Your task to perform on an android device: turn off notifications in google photos Image 0: 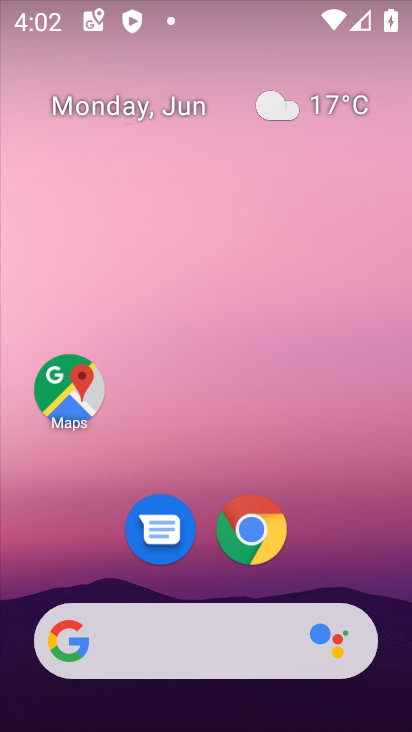
Step 0: drag from (355, 552) to (267, 0)
Your task to perform on an android device: turn off notifications in google photos Image 1: 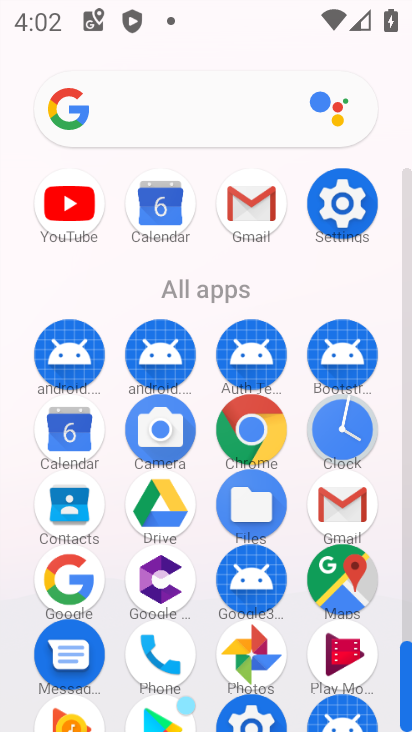
Step 1: click (252, 656)
Your task to perform on an android device: turn off notifications in google photos Image 2: 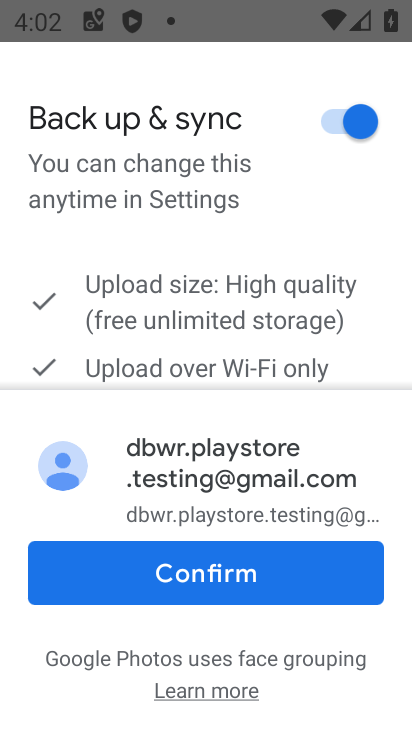
Step 2: click (213, 583)
Your task to perform on an android device: turn off notifications in google photos Image 3: 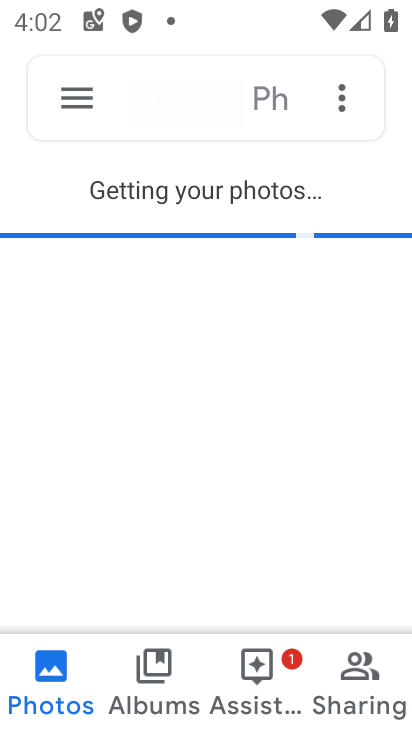
Step 3: click (68, 97)
Your task to perform on an android device: turn off notifications in google photos Image 4: 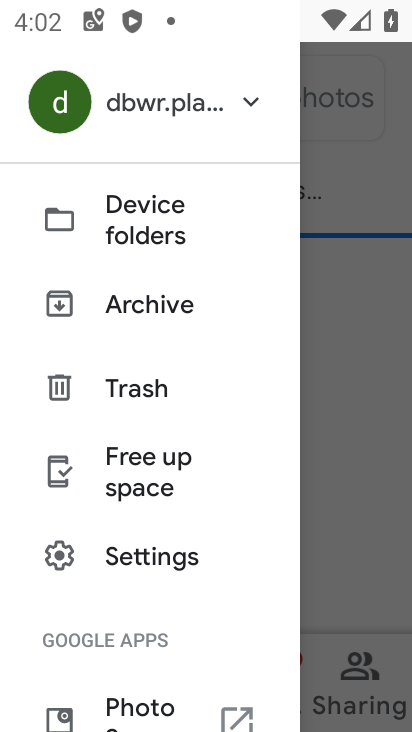
Step 4: click (164, 557)
Your task to perform on an android device: turn off notifications in google photos Image 5: 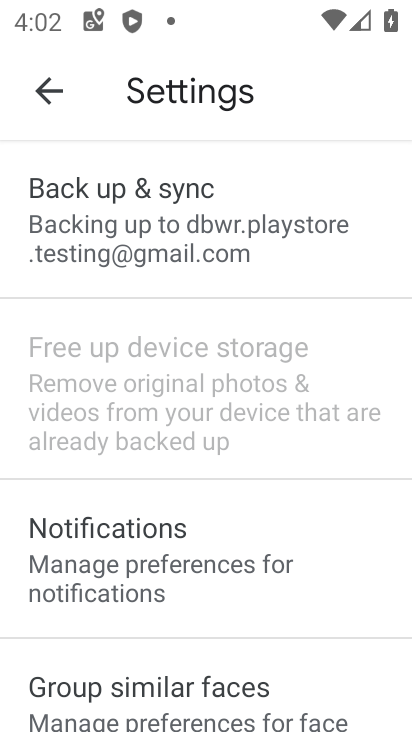
Step 5: click (172, 556)
Your task to perform on an android device: turn off notifications in google photos Image 6: 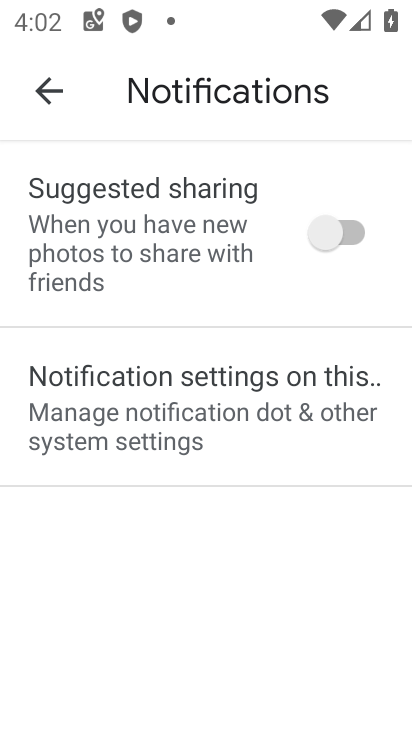
Step 6: click (172, 401)
Your task to perform on an android device: turn off notifications in google photos Image 7: 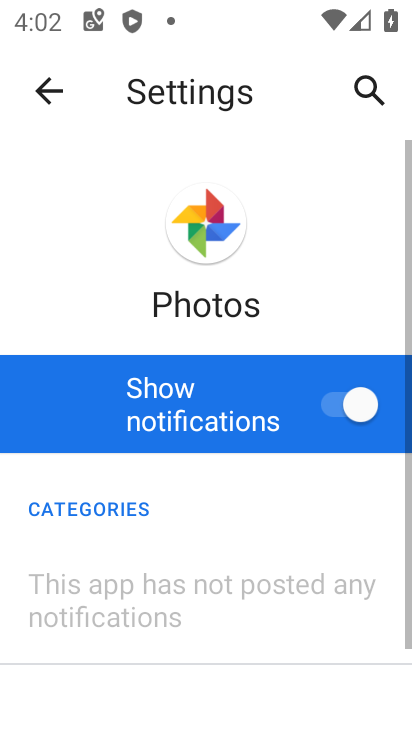
Step 7: click (341, 397)
Your task to perform on an android device: turn off notifications in google photos Image 8: 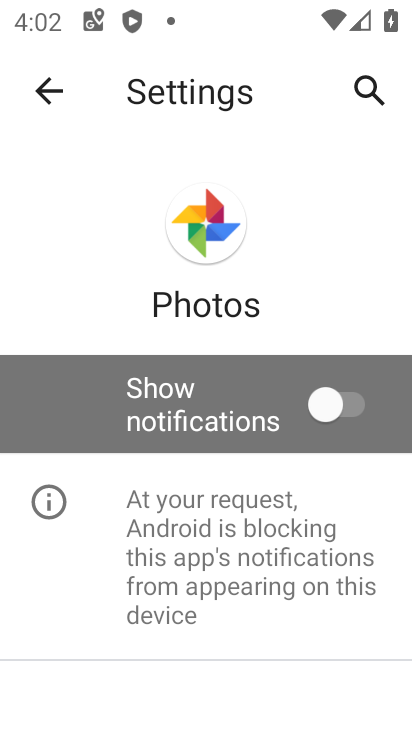
Step 8: task complete